Your task to perform on an android device: turn off notifications settings in the gmail app Image 0: 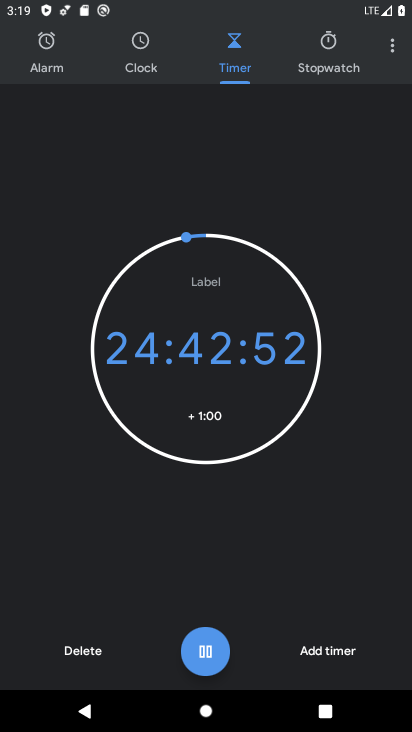
Step 0: press home button
Your task to perform on an android device: turn off notifications settings in the gmail app Image 1: 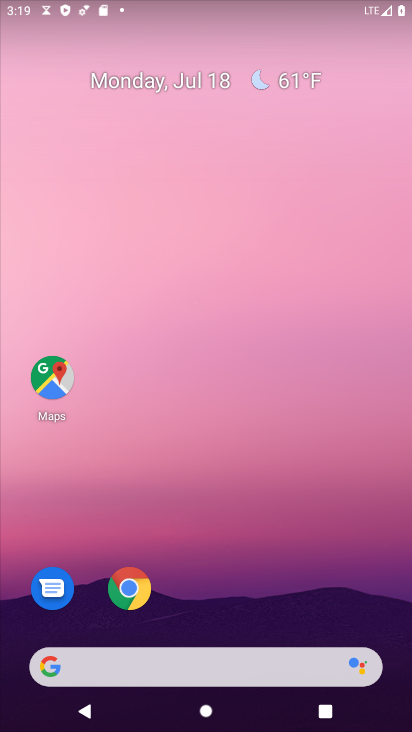
Step 1: drag from (273, 576) to (312, 0)
Your task to perform on an android device: turn off notifications settings in the gmail app Image 2: 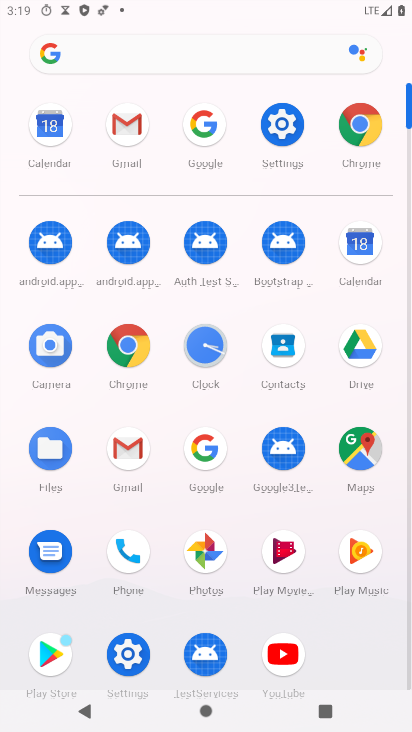
Step 2: click (135, 135)
Your task to perform on an android device: turn off notifications settings in the gmail app Image 3: 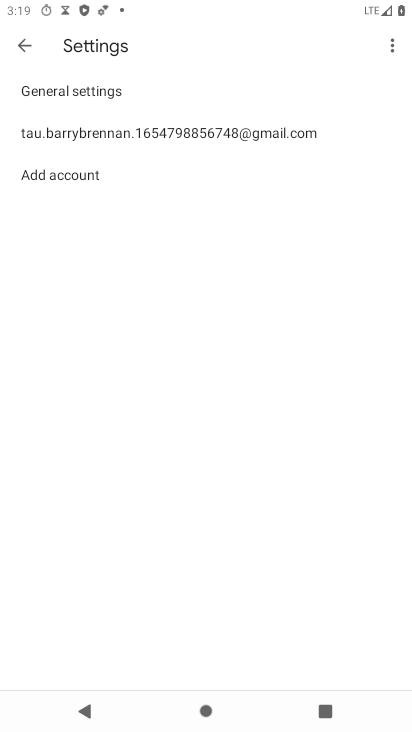
Step 3: click (81, 141)
Your task to perform on an android device: turn off notifications settings in the gmail app Image 4: 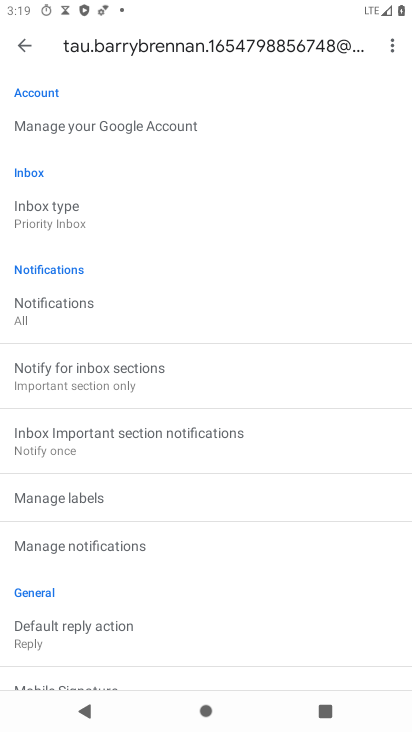
Step 4: click (48, 309)
Your task to perform on an android device: turn off notifications settings in the gmail app Image 5: 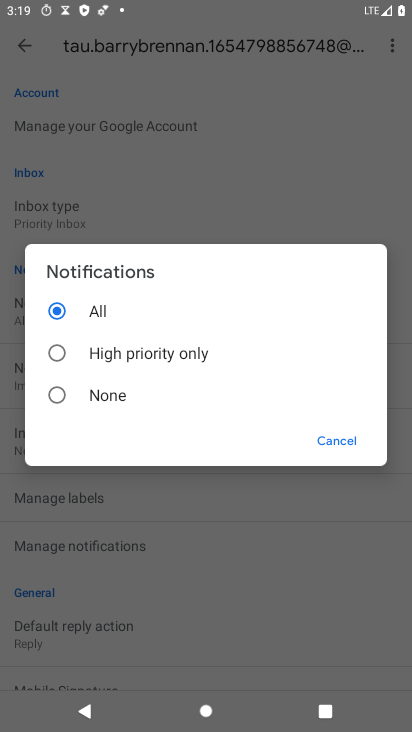
Step 5: click (116, 396)
Your task to perform on an android device: turn off notifications settings in the gmail app Image 6: 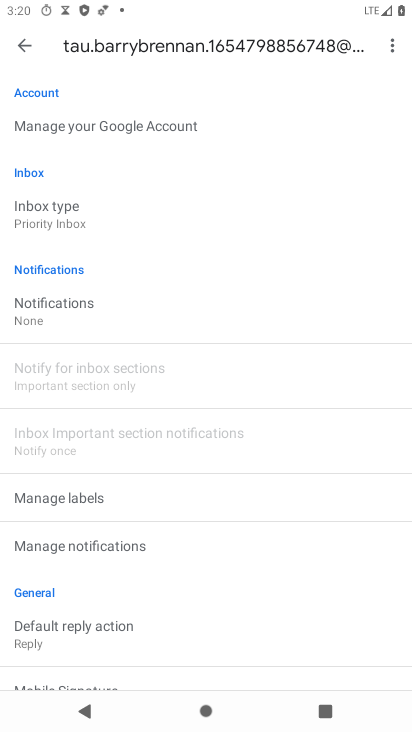
Step 6: task complete